Your task to perform on an android device: Go to Android settings Image 0: 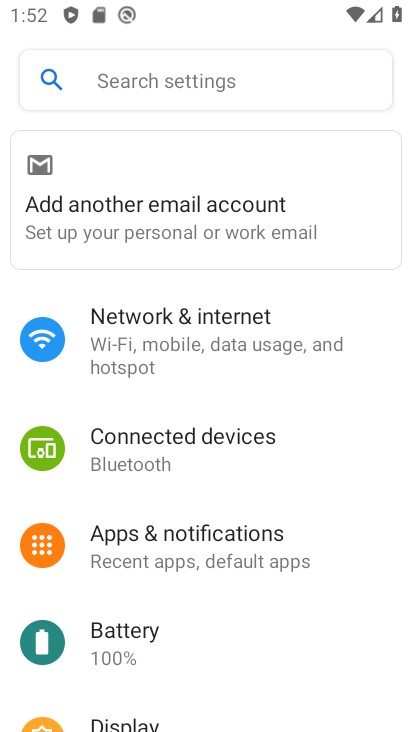
Step 0: task complete